Your task to perform on an android device: Open Chrome and go to the settings page Image 0: 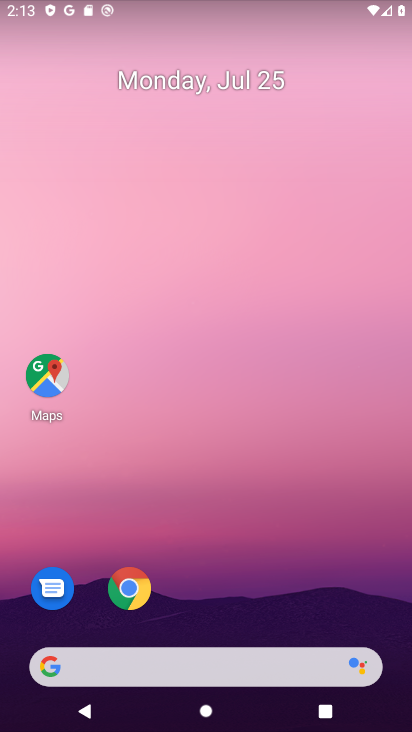
Step 0: press home button
Your task to perform on an android device: Open Chrome and go to the settings page Image 1: 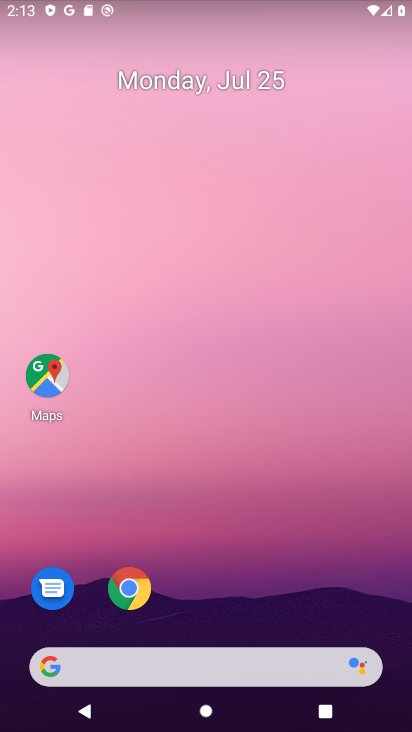
Step 1: click (129, 584)
Your task to perform on an android device: Open Chrome and go to the settings page Image 2: 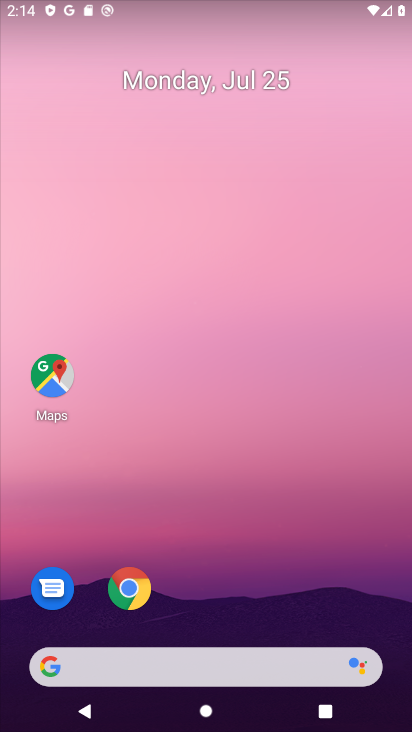
Step 2: click (127, 586)
Your task to perform on an android device: Open Chrome and go to the settings page Image 3: 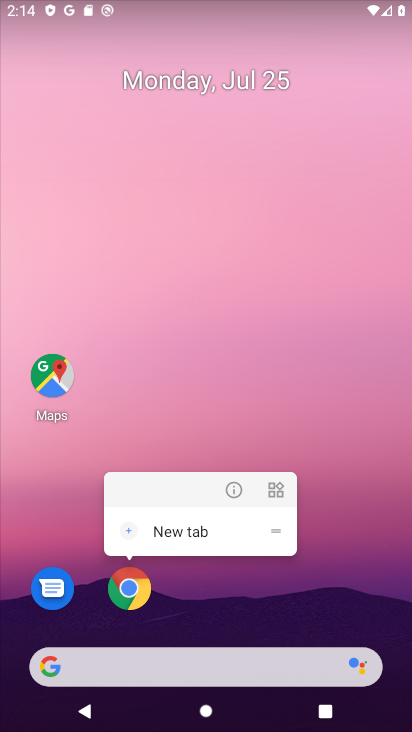
Step 3: click (127, 580)
Your task to perform on an android device: Open Chrome and go to the settings page Image 4: 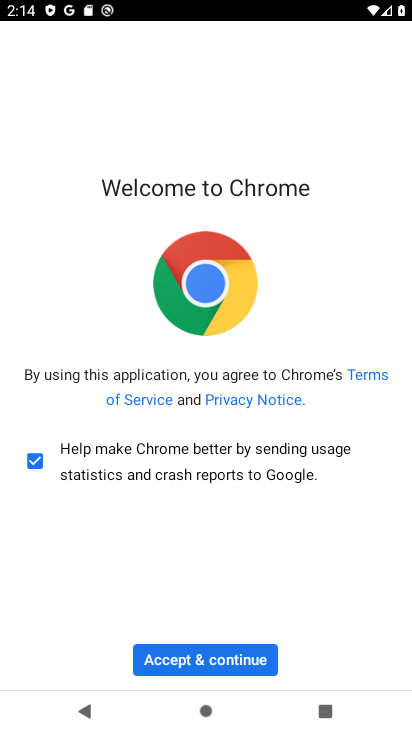
Step 4: click (198, 654)
Your task to perform on an android device: Open Chrome and go to the settings page Image 5: 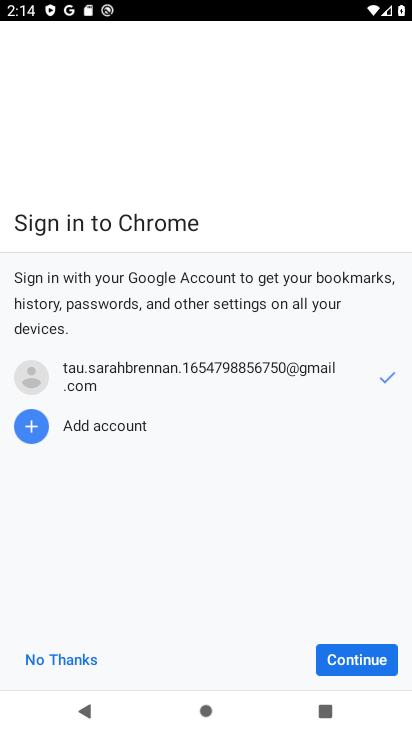
Step 5: click (355, 651)
Your task to perform on an android device: Open Chrome and go to the settings page Image 6: 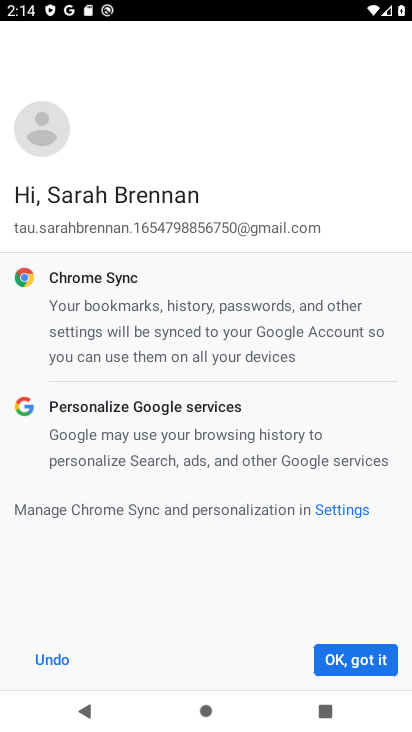
Step 6: click (353, 658)
Your task to perform on an android device: Open Chrome and go to the settings page Image 7: 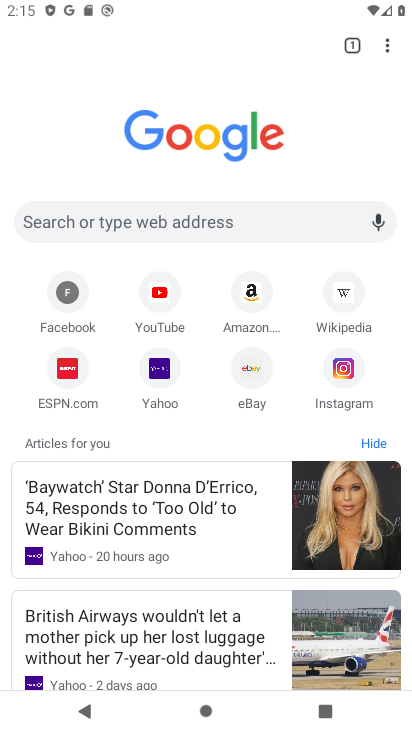
Step 7: click (384, 42)
Your task to perform on an android device: Open Chrome and go to the settings page Image 8: 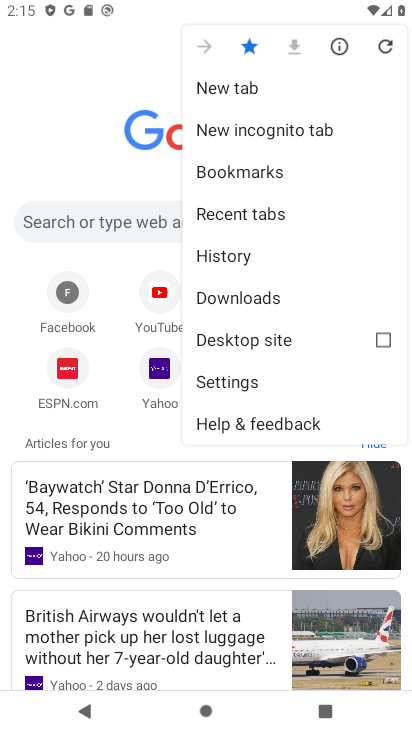
Step 8: click (264, 376)
Your task to perform on an android device: Open Chrome and go to the settings page Image 9: 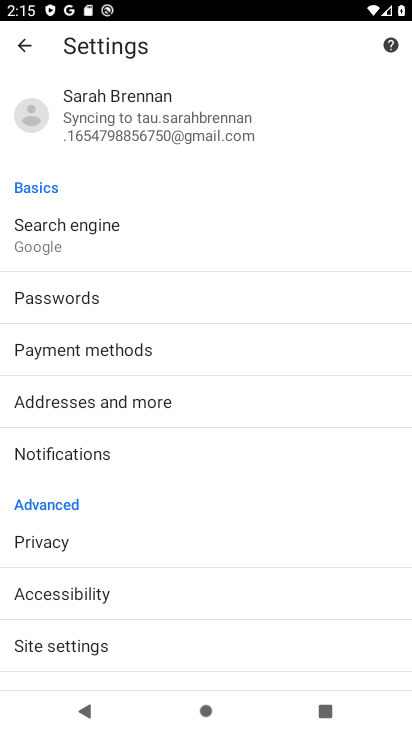
Step 9: task complete